Your task to perform on an android device: turn smart compose on in the gmail app Image 0: 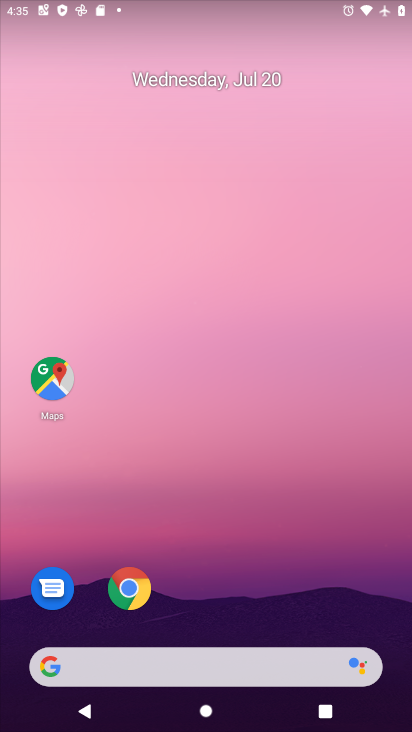
Step 0: drag from (317, 575) to (283, 76)
Your task to perform on an android device: turn smart compose on in the gmail app Image 1: 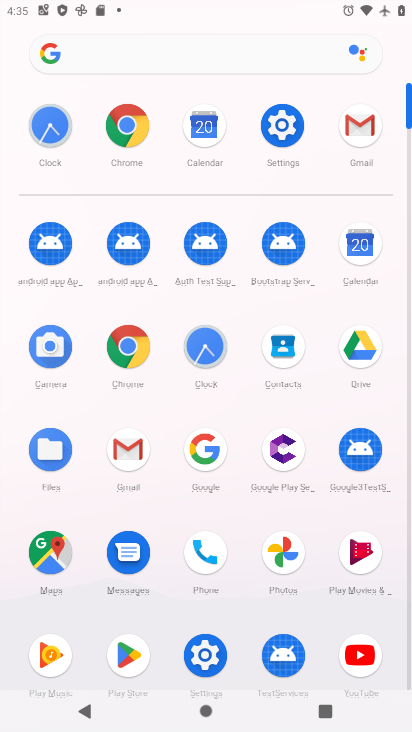
Step 1: click (370, 125)
Your task to perform on an android device: turn smart compose on in the gmail app Image 2: 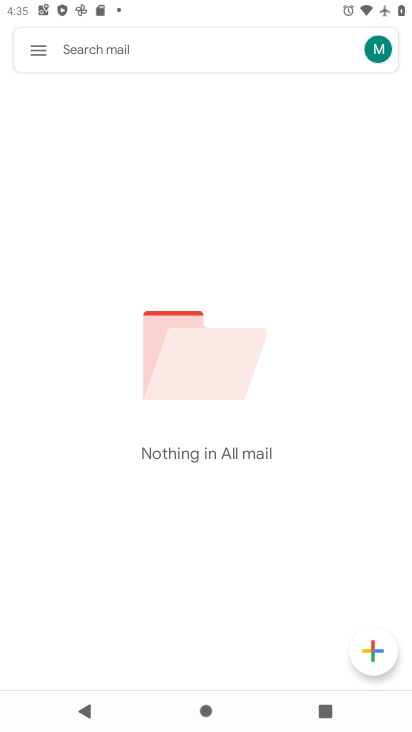
Step 2: click (34, 35)
Your task to perform on an android device: turn smart compose on in the gmail app Image 3: 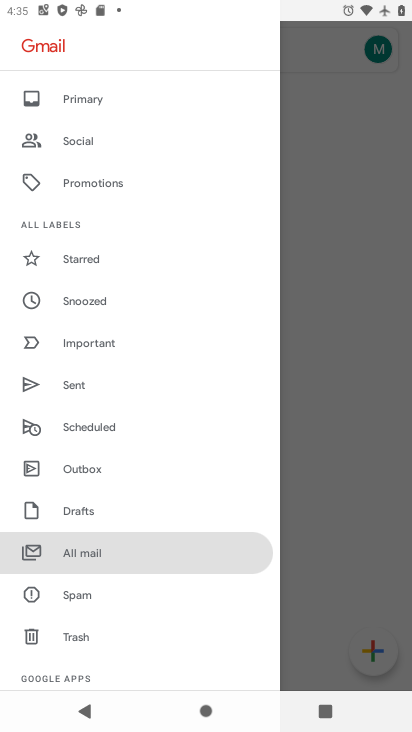
Step 3: drag from (76, 623) to (193, 211)
Your task to perform on an android device: turn smart compose on in the gmail app Image 4: 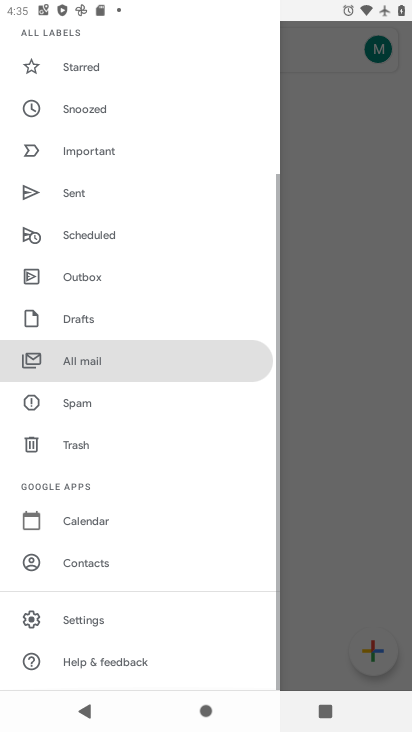
Step 4: click (81, 624)
Your task to perform on an android device: turn smart compose on in the gmail app Image 5: 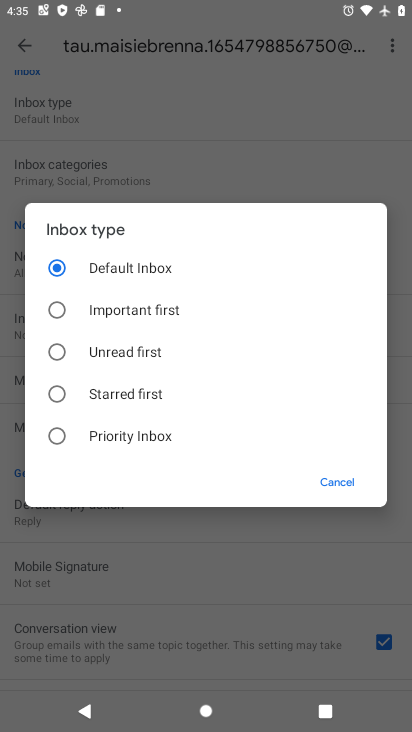
Step 5: click (343, 485)
Your task to perform on an android device: turn smart compose on in the gmail app Image 6: 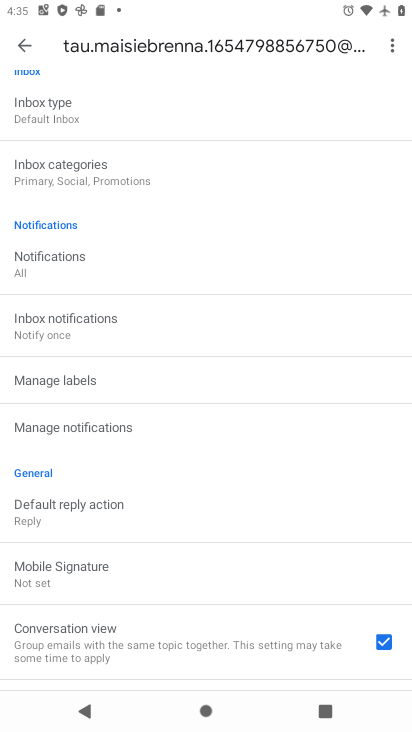
Step 6: task complete